Your task to perform on an android device: set default search engine in the chrome app Image 0: 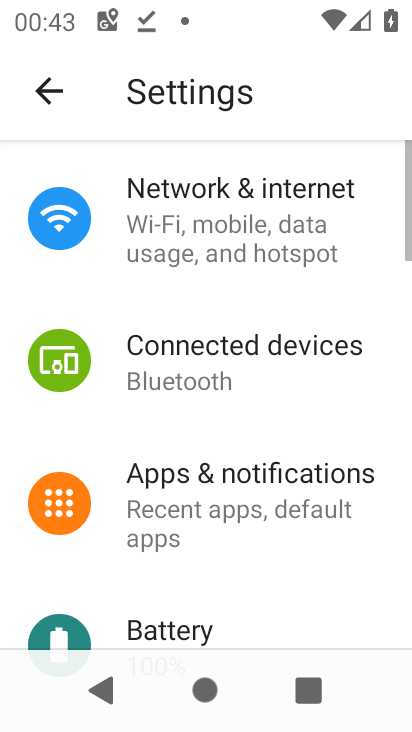
Step 0: press home button
Your task to perform on an android device: set default search engine in the chrome app Image 1: 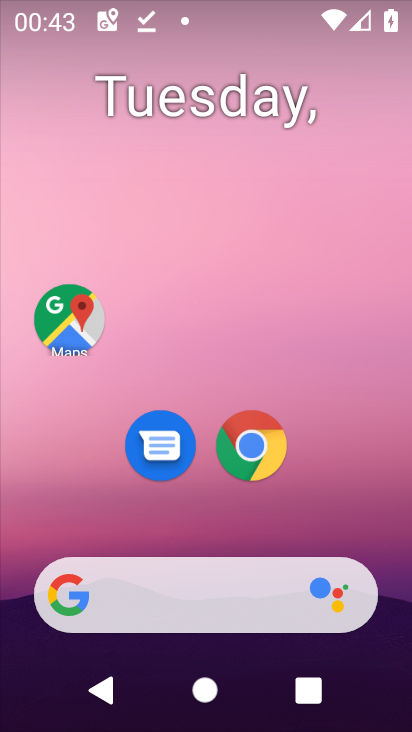
Step 1: click (249, 440)
Your task to perform on an android device: set default search engine in the chrome app Image 2: 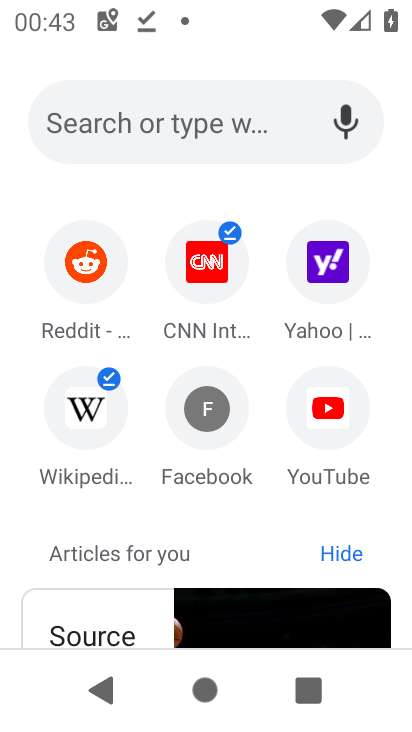
Step 2: drag from (378, 219) to (365, 729)
Your task to perform on an android device: set default search engine in the chrome app Image 3: 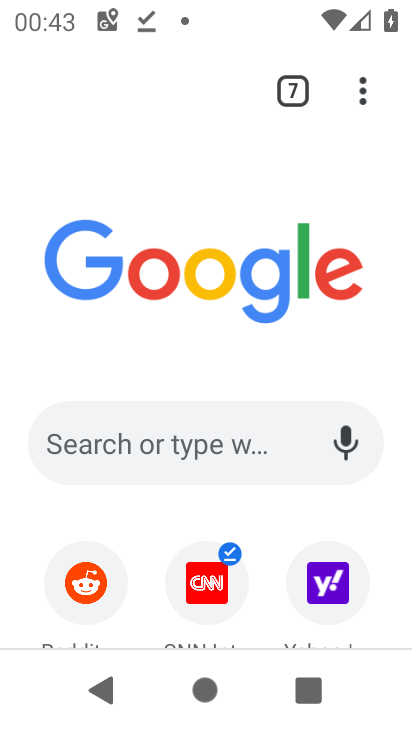
Step 3: click (359, 89)
Your task to perform on an android device: set default search engine in the chrome app Image 4: 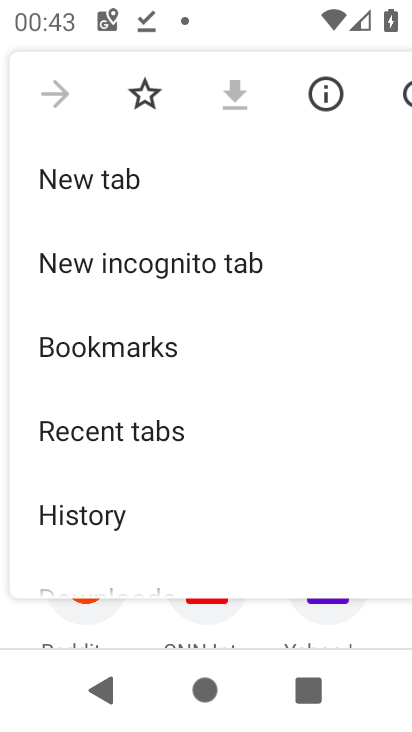
Step 4: drag from (173, 409) to (121, 177)
Your task to perform on an android device: set default search engine in the chrome app Image 5: 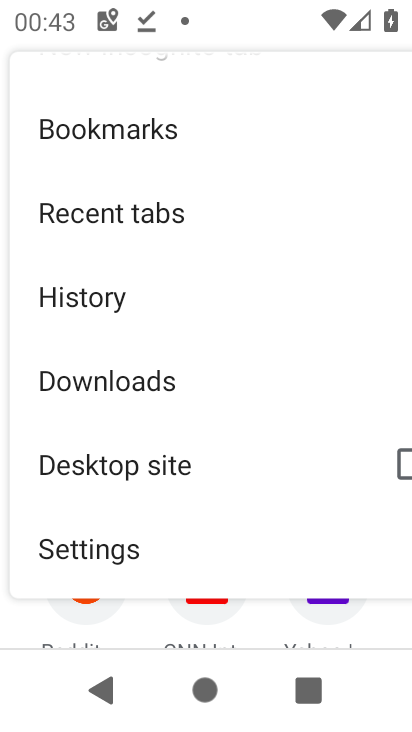
Step 5: click (81, 548)
Your task to perform on an android device: set default search engine in the chrome app Image 6: 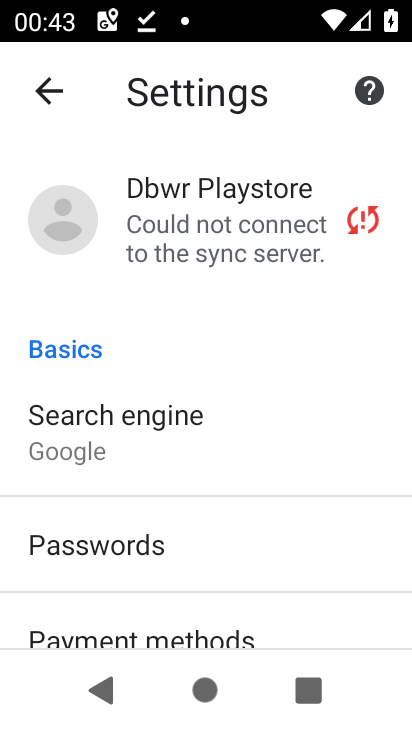
Step 6: click (88, 417)
Your task to perform on an android device: set default search engine in the chrome app Image 7: 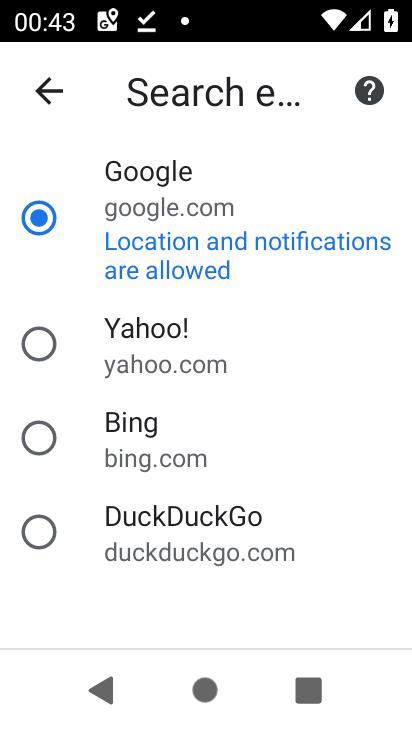
Step 7: click (38, 341)
Your task to perform on an android device: set default search engine in the chrome app Image 8: 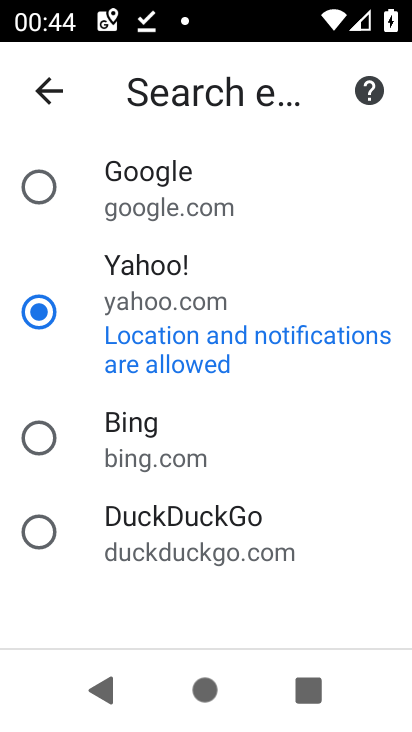
Step 8: task complete